Your task to perform on an android device: What's the weather going to be tomorrow? Image 0: 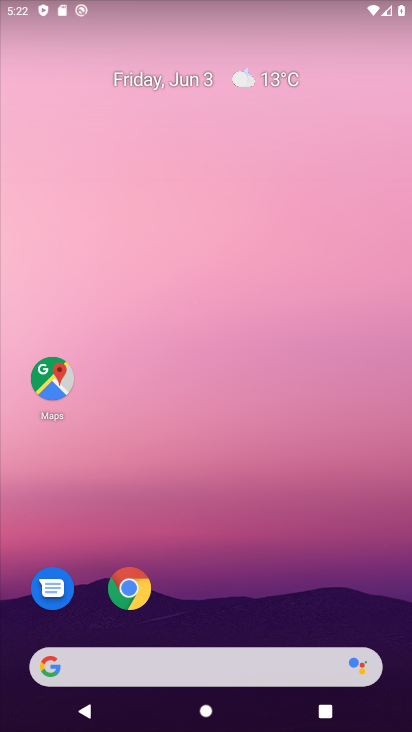
Step 0: click (125, 653)
Your task to perform on an android device: What's the weather going to be tomorrow? Image 1: 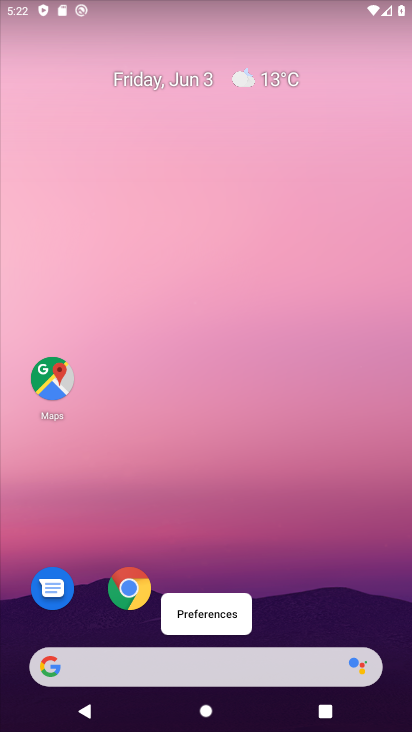
Step 1: click (173, 667)
Your task to perform on an android device: What's the weather going to be tomorrow? Image 2: 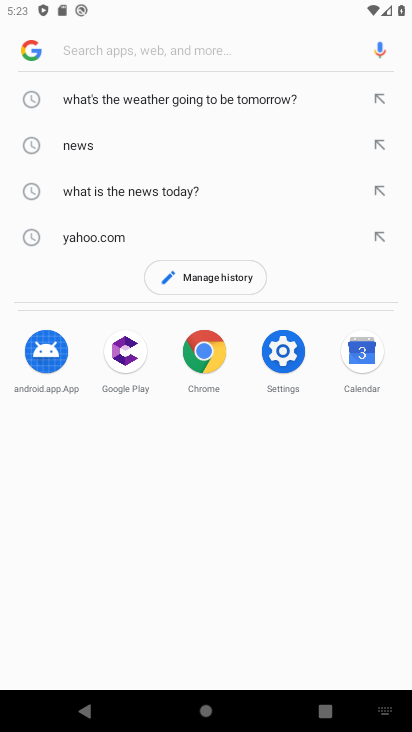
Step 2: click (189, 41)
Your task to perform on an android device: What's the weather going to be tomorrow? Image 3: 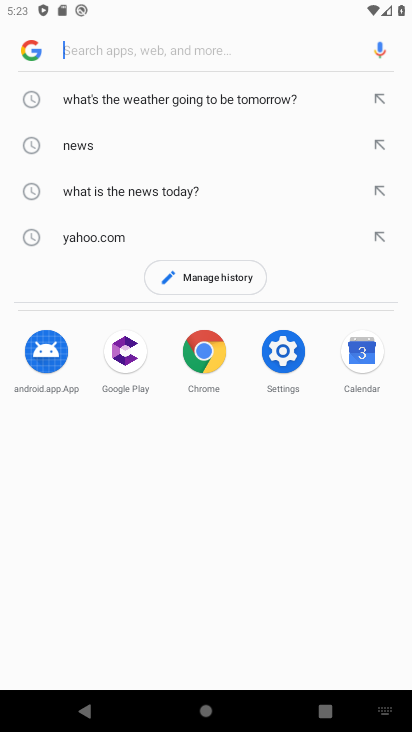
Step 3: type "weather"
Your task to perform on an android device: What's the weather going to be tomorrow? Image 4: 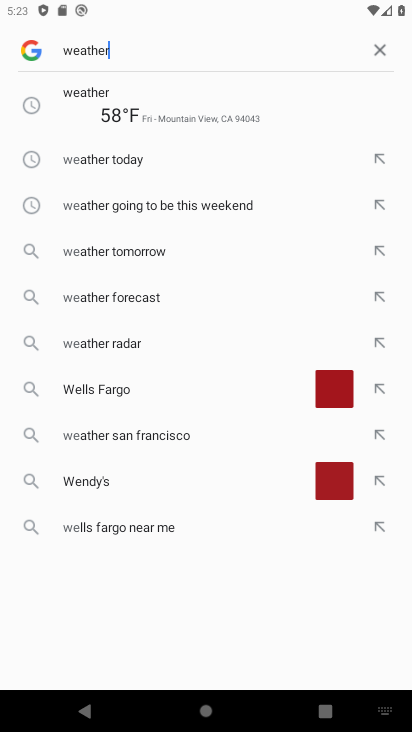
Step 4: type ""
Your task to perform on an android device: What's the weather going to be tomorrow? Image 5: 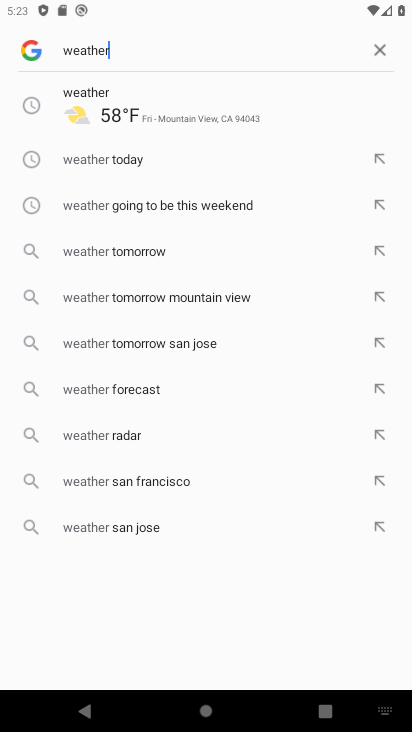
Step 5: task complete